Your task to perform on an android device: toggle show notifications on the lock screen Image 0: 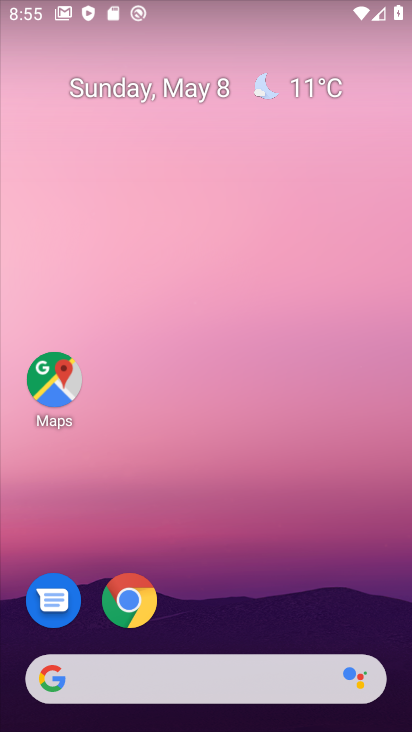
Step 0: drag from (201, 601) to (221, 104)
Your task to perform on an android device: toggle show notifications on the lock screen Image 1: 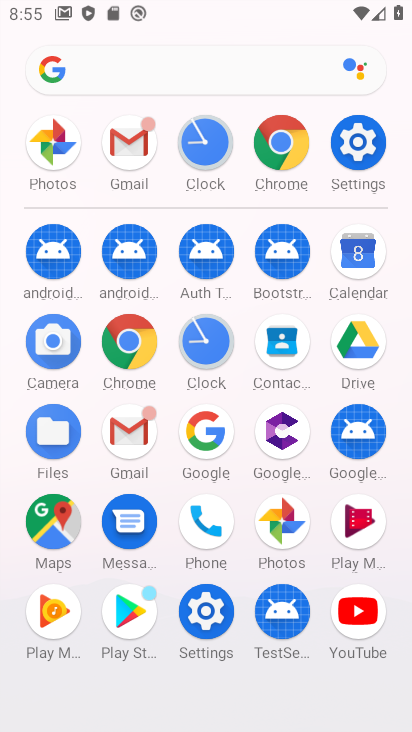
Step 1: click (374, 150)
Your task to perform on an android device: toggle show notifications on the lock screen Image 2: 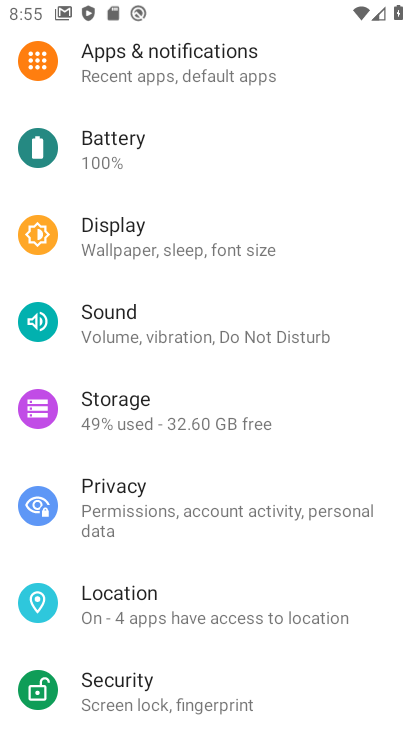
Step 2: click (216, 78)
Your task to perform on an android device: toggle show notifications on the lock screen Image 3: 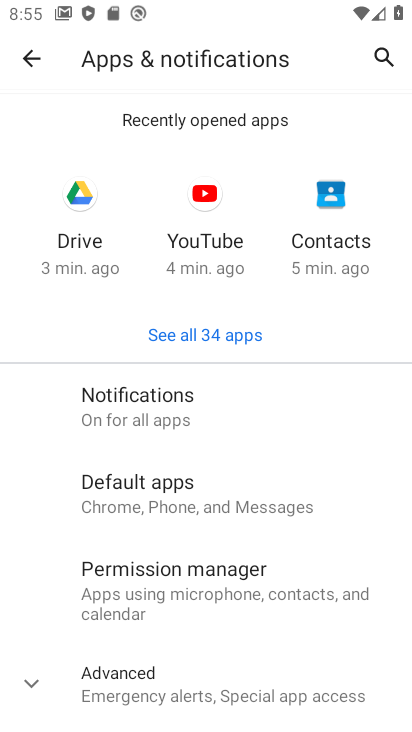
Step 3: click (141, 415)
Your task to perform on an android device: toggle show notifications on the lock screen Image 4: 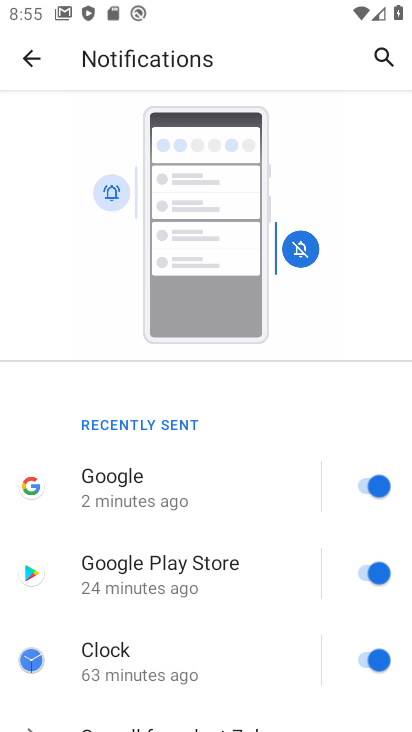
Step 4: drag from (169, 631) to (285, 14)
Your task to perform on an android device: toggle show notifications on the lock screen Image 5: 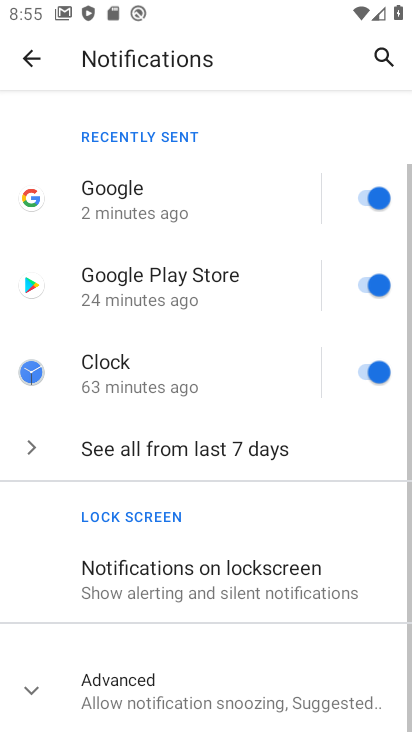
Step 5: click (161, 581)
Your task to perform on an android device: toggle show notifications on the lock screen Image 6: 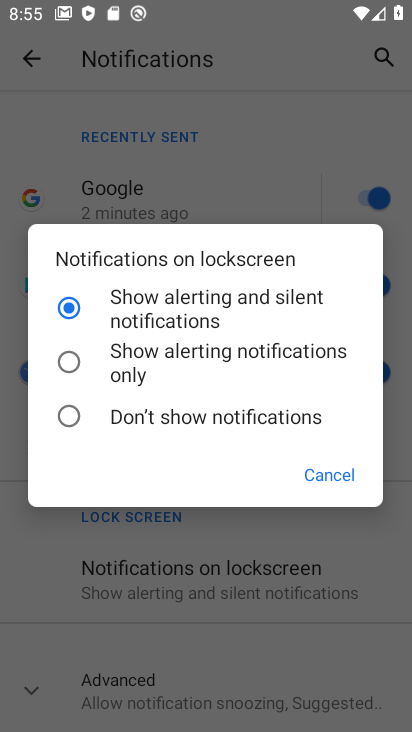
Step 6: click (263, 347)
Your task to perform on an android device: toggle show notifications on the lock screen Image 7: 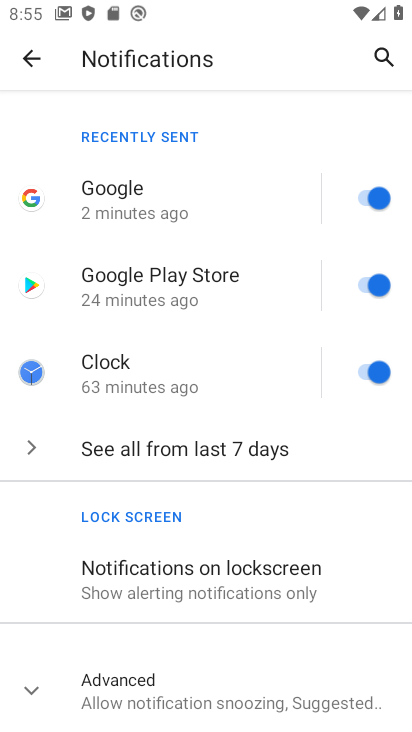
Step 7: task complete